Your task to perform on an android device: toggle location history Image 0: 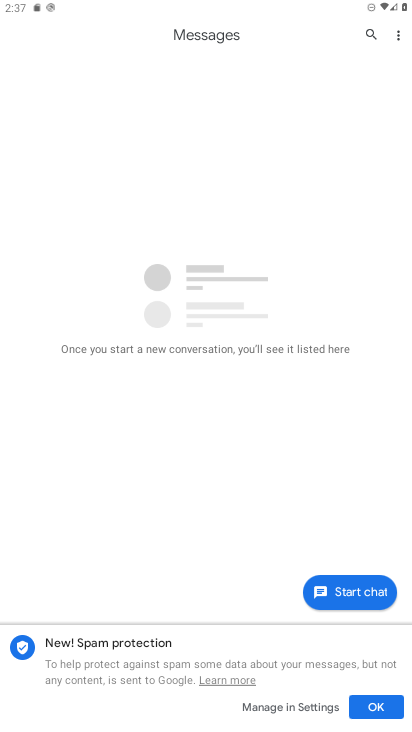
Step 0: press home button
Your task to perform on an android device: toggle location history Image 1: 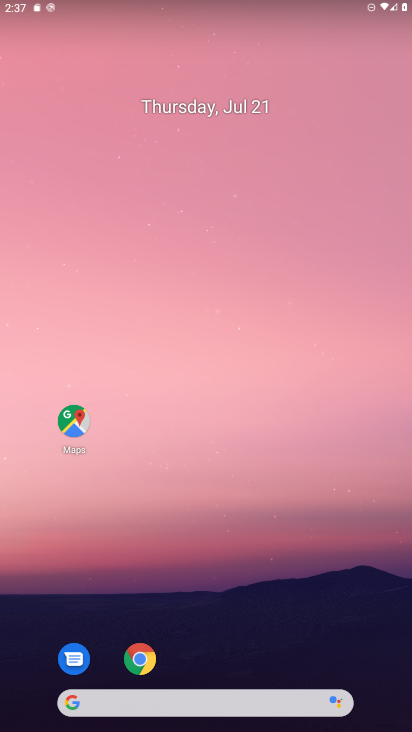
Step 1: drag from (26, 584) to (236, 19)
Your task to perform on an android device: toggle location history Image 2: 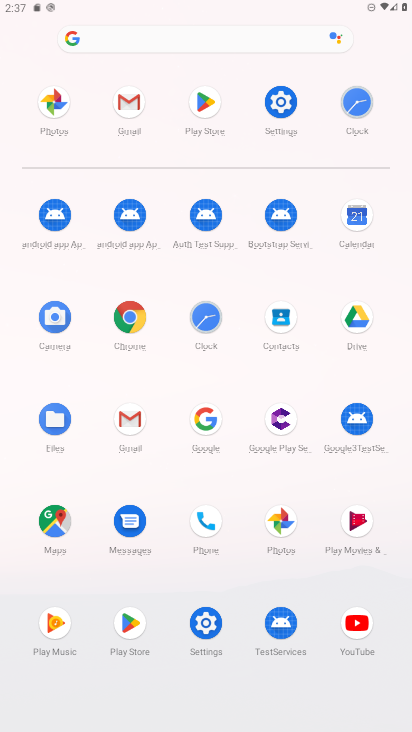
Step 2: click (289, 108)
Your task to perform on an android device: toggle location history Image 3: 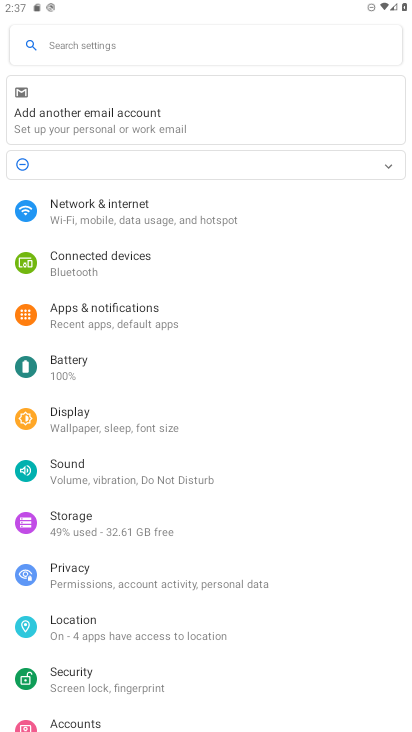
Step 3: click (155, 627)
Your task to perform on an android device: toggle location history Image 4: 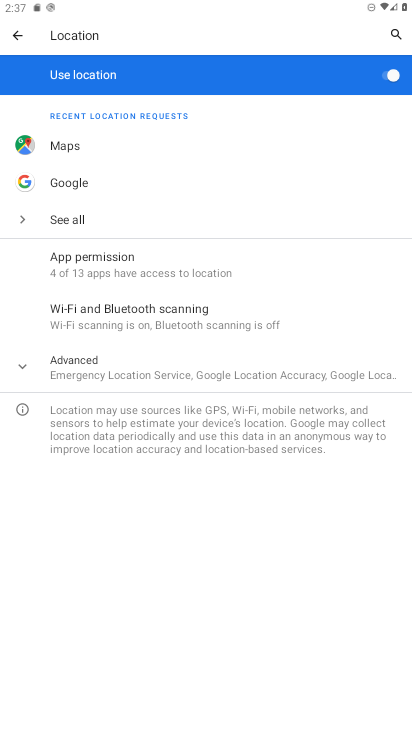
Step 4: click (177, 374)
Your task to perform on an android device: toggle location history Image 5: 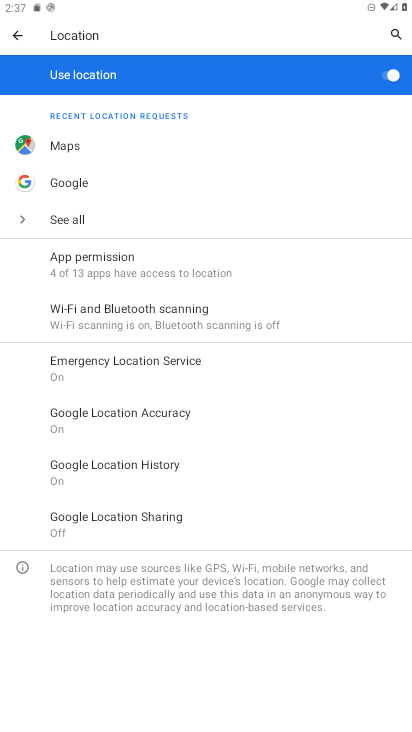
Step 5: click (98, 465)
Your task to perform on an android device: toggle location history Image 6: 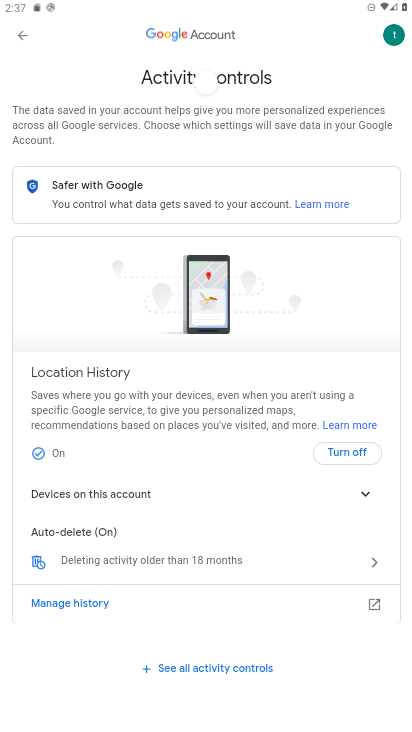
Step 6: click (357, 448)
Your task to perform on an android device: toggle location history Image 7: 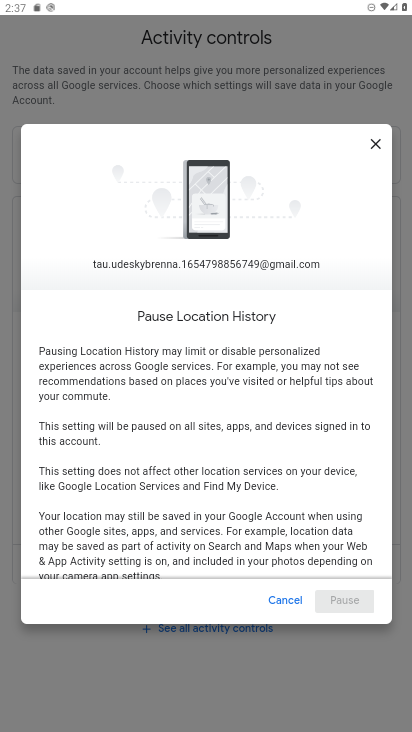
Step 7: drag from (34, 502) to (212, 135)
Your task to perform on an android device: toggle location history Image 8: 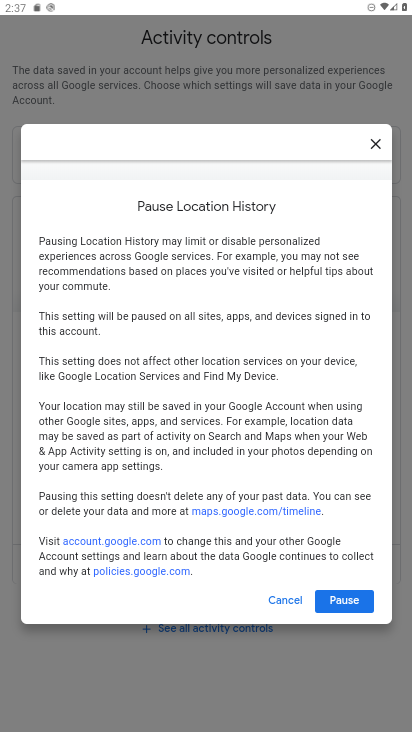
Step 8: click (328, 600)
Your task to perform on an android device: toggle location history Image 9: 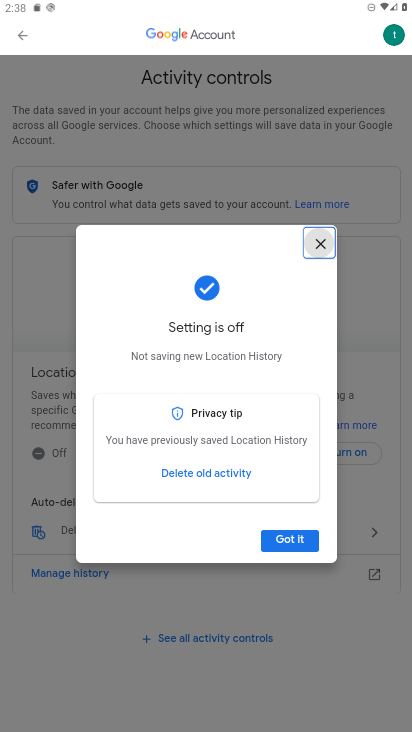
Step 9: click (296, 537)
Your task to perform on an android device: toggle location history Image 10: 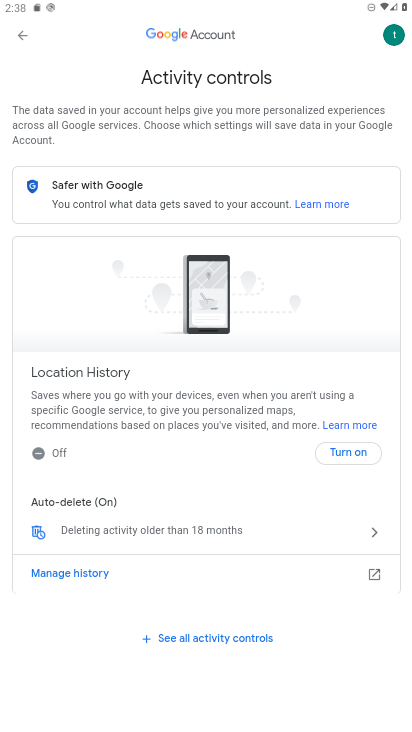
Step 10: task complete